Your task to perform on an android device: Empty the shopping cart on bestbuy.com. Image 0: 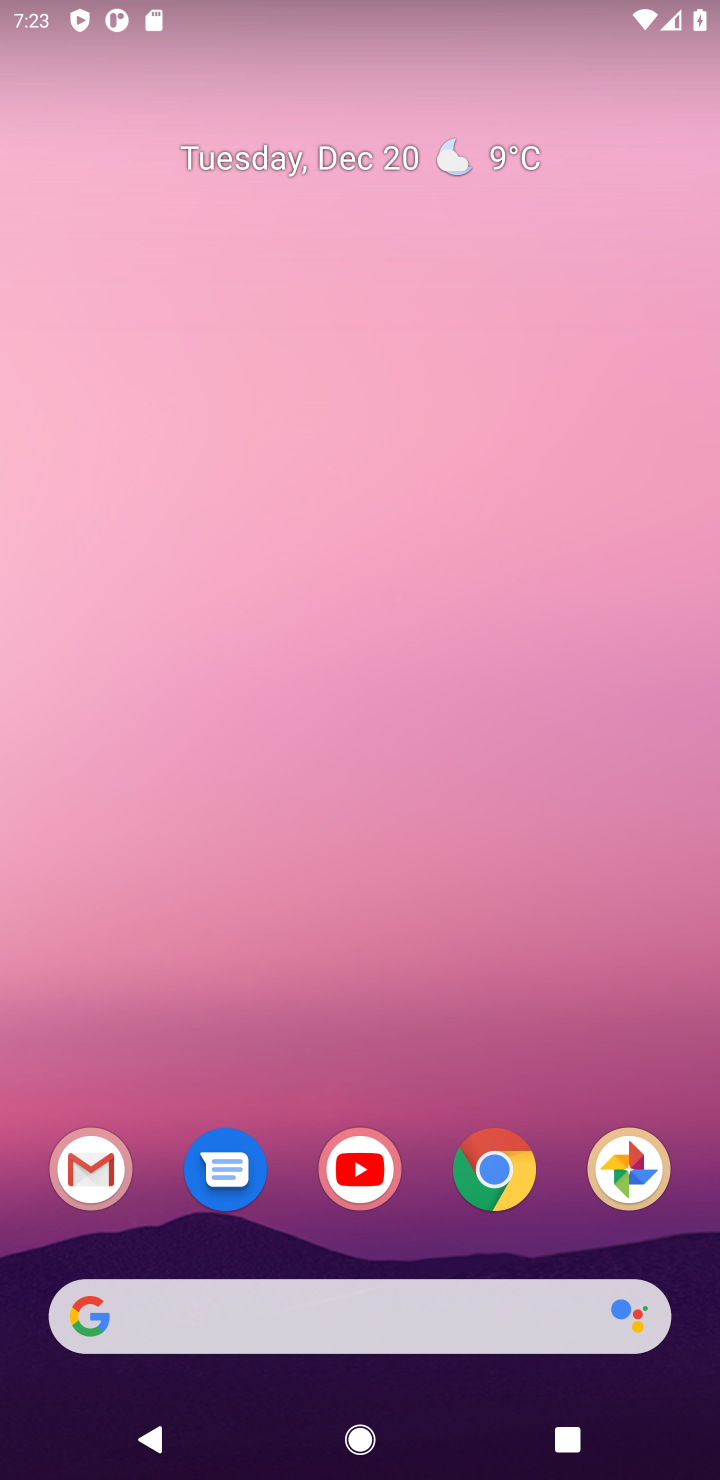
Step 0: click (447, 1318)
Your task to perform on an android device: Empty the shopping cart on bestbuy.com. Image 1: 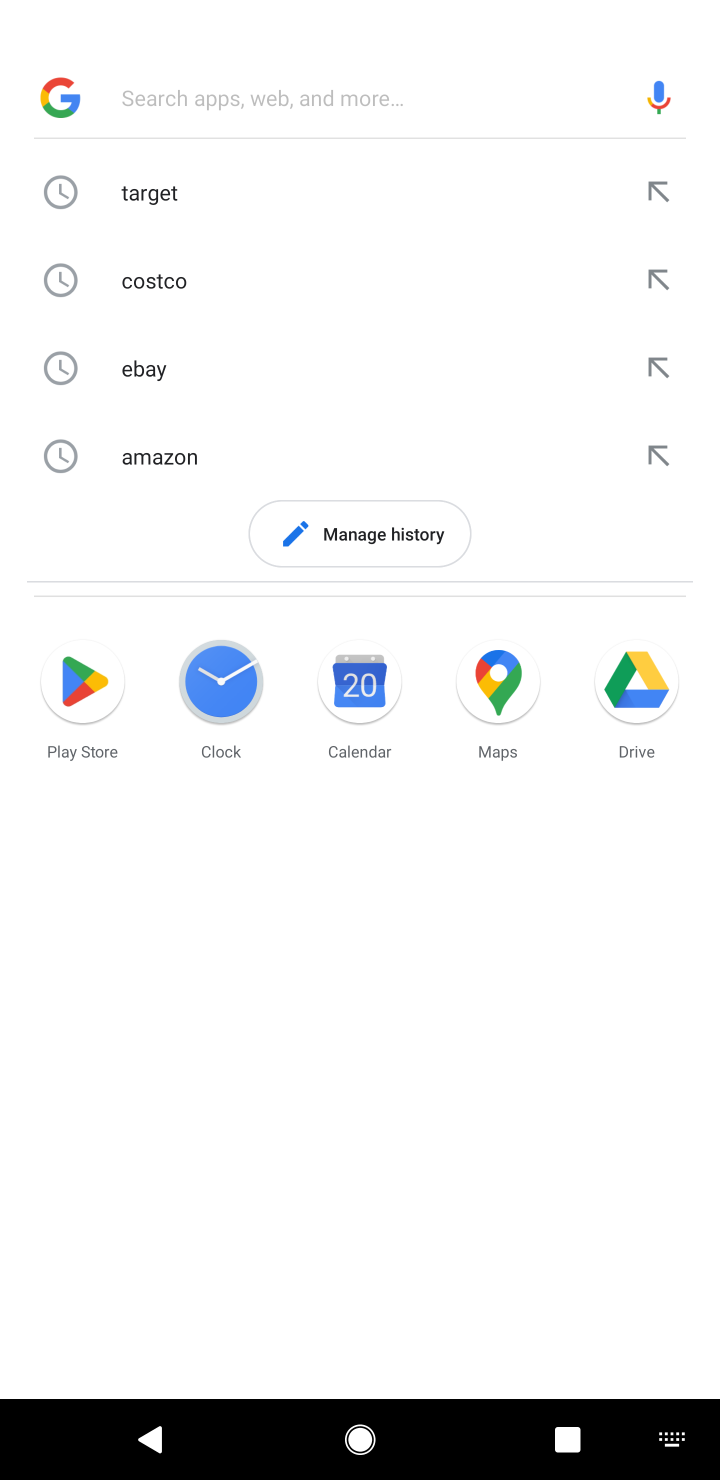
Step 1: type "bestbuy\\"
Your task to perform on an android device: Empty the shopping cart on bestbuy.com. Image 2: 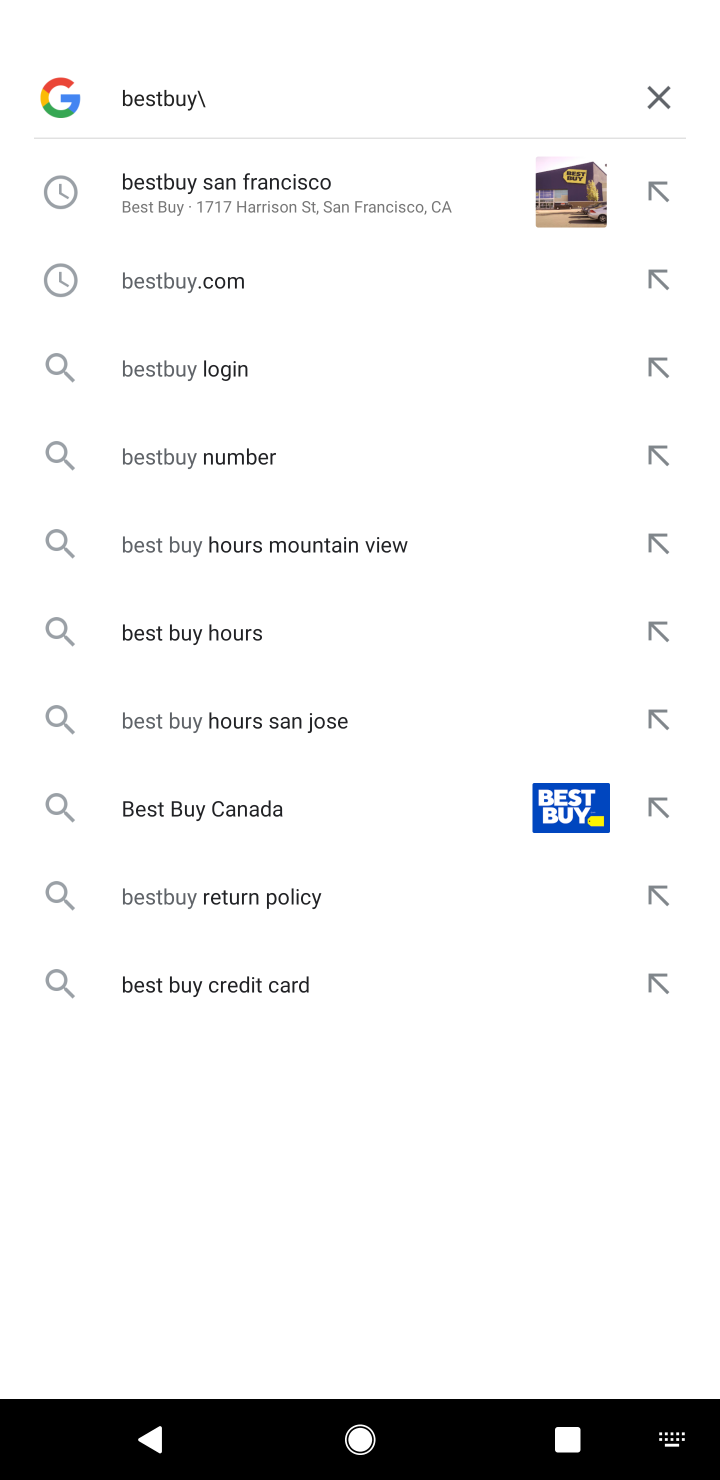
Step 2: click (231, 275)
Your task to perform on an android device: Empty the shopping cart on bestbuy.com. Image 3: 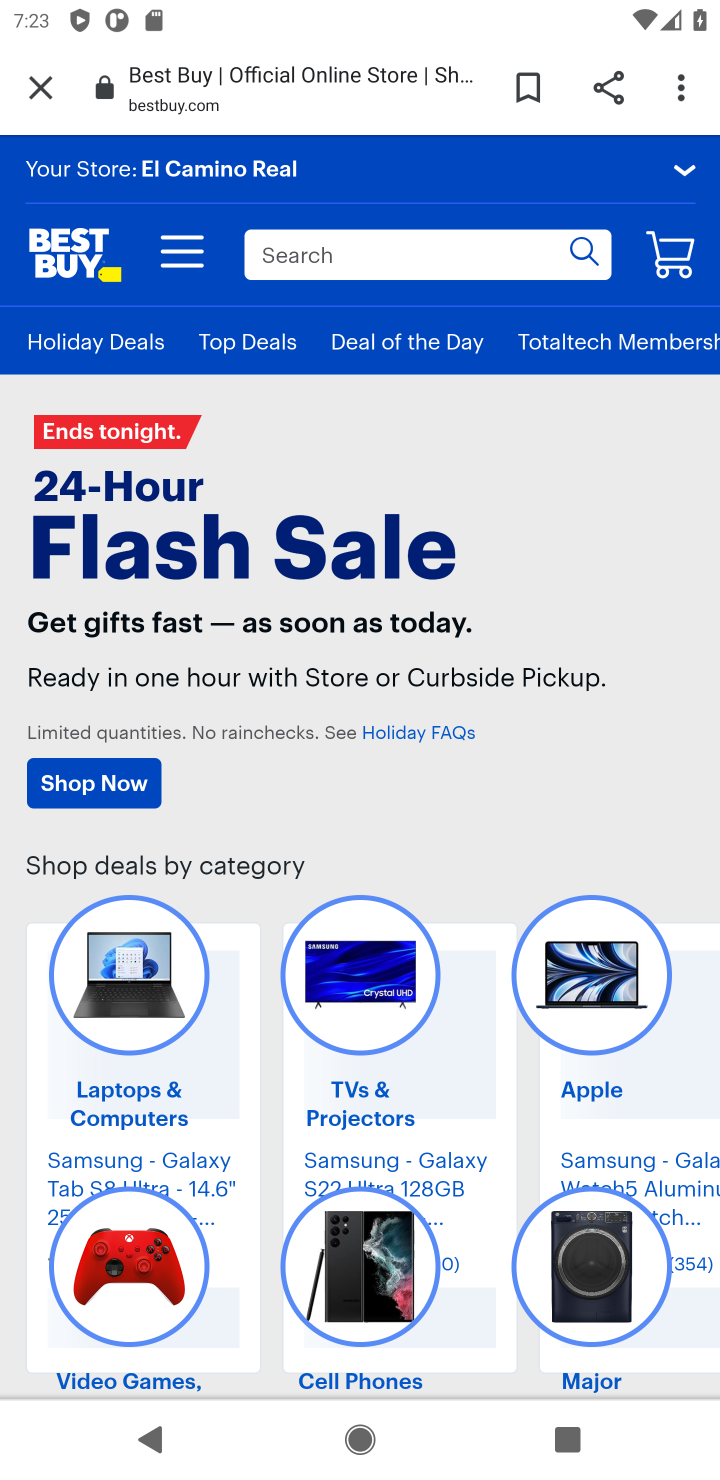
Step 3: click (423, 267)
Your task to perform on an android device: Empty the shopping cart on bestbuy.com. Image 4: 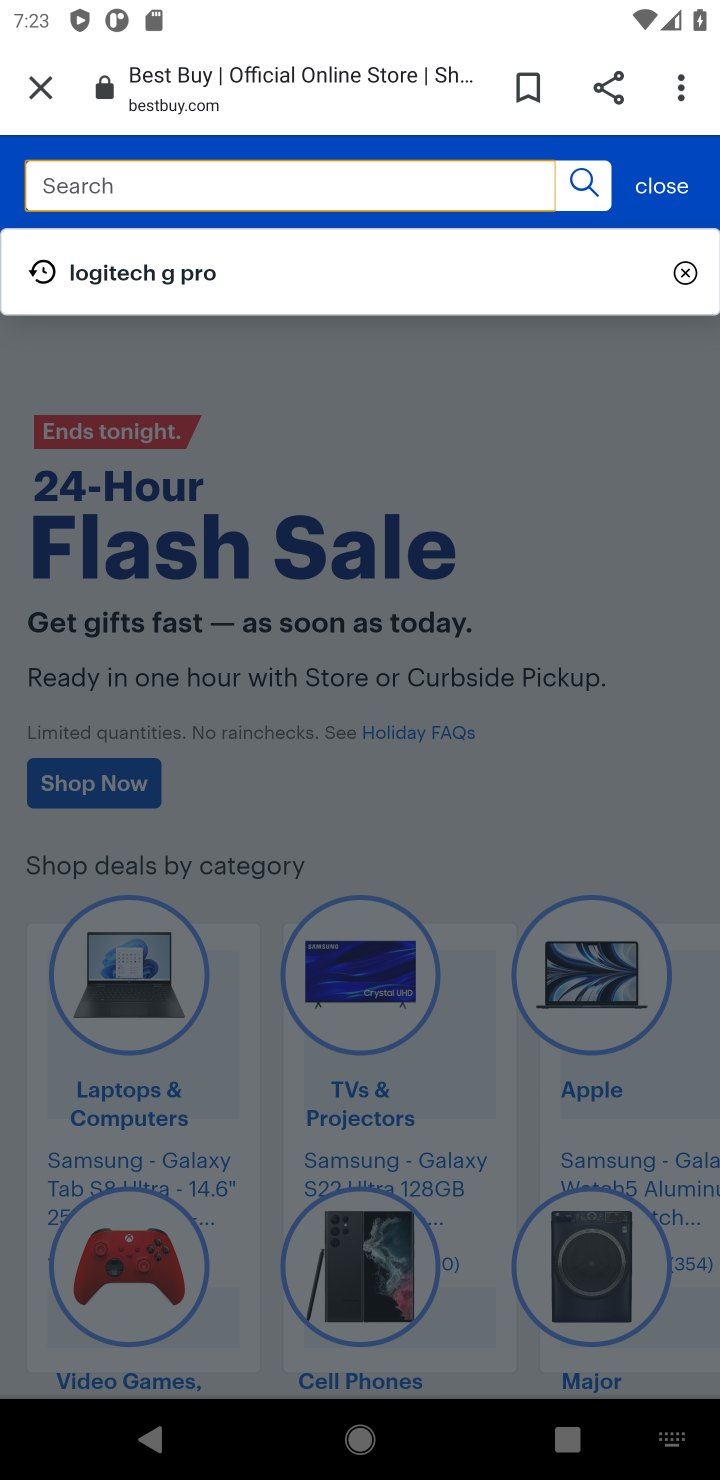
Step 4: click (674, 207)
Your task to perform on an android device: Empty the shopping cart on bestbuy.com. Image 5: 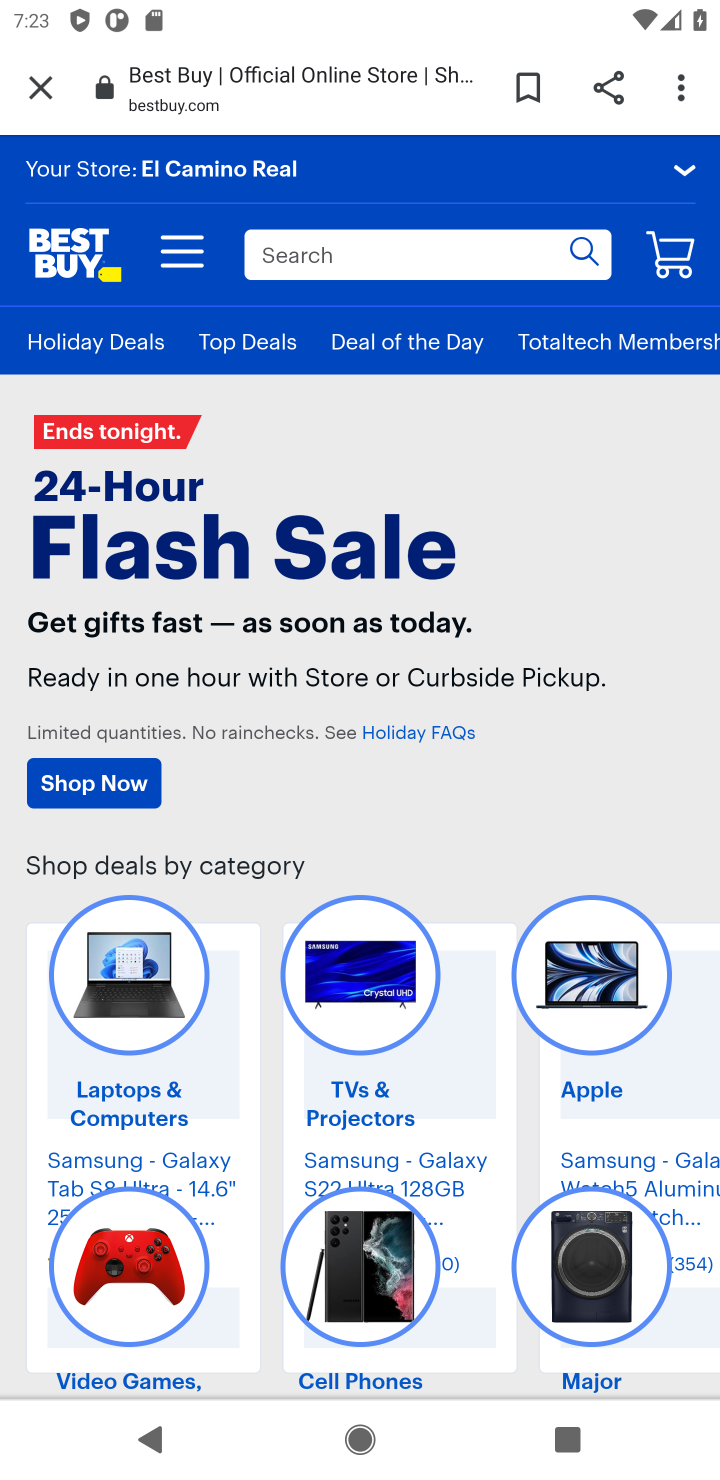
Step 5: click (661, 286)
Your task to perform on an android device: Empty the shopping cart on bestbuy.com. Image 6: 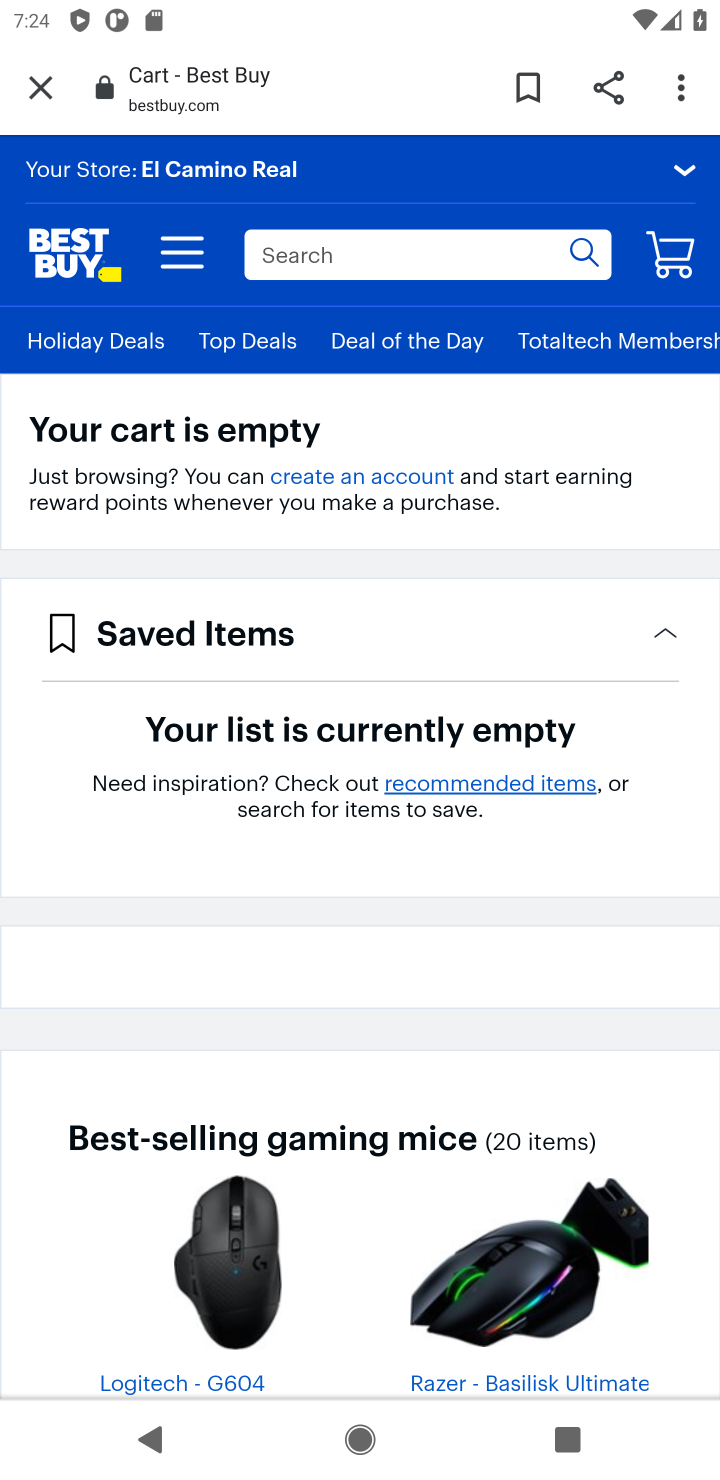
Step 6: task complete